Your task to perform on an android device: Open calendar and show me the first week of next month Image 0: 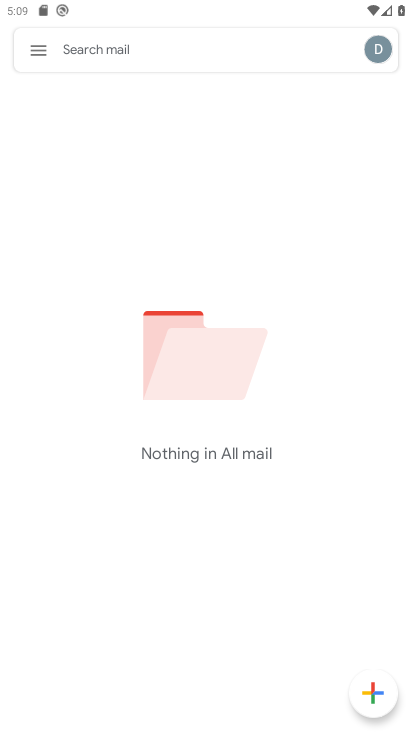
Step 0: press home button
Your task to perform on an android device: Open calendar and show me the first week of next month Image 1: 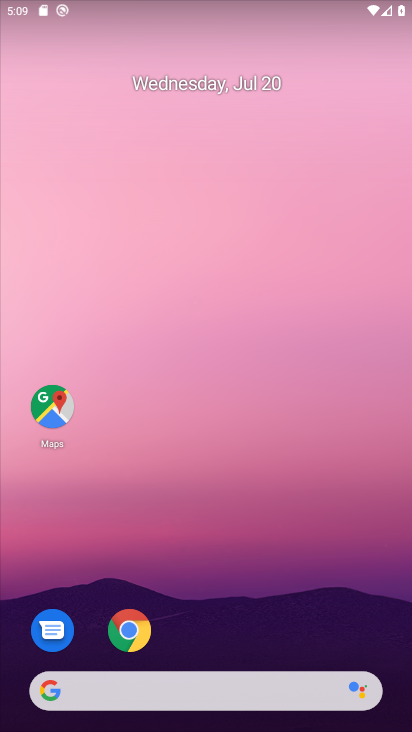
Step 1: drag from (231, 658) to (266, 4)
Your task to perform on an android device: Open calendar and show me the first week of next month Image 2: 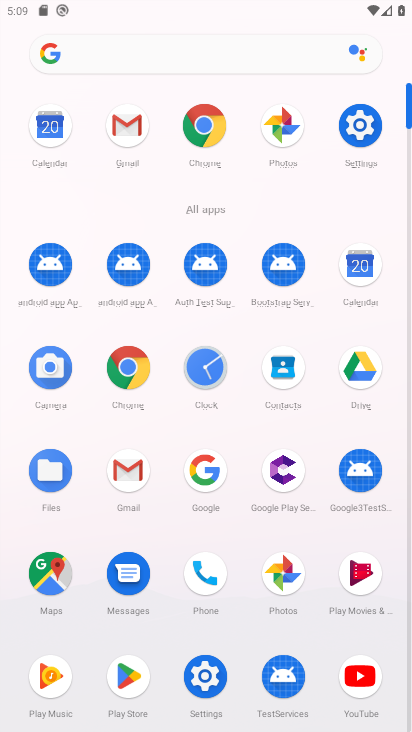
Step 2: click (356, 278)
Your task to perform on an android device: Open calendar and show me the first week of next month Image 3: 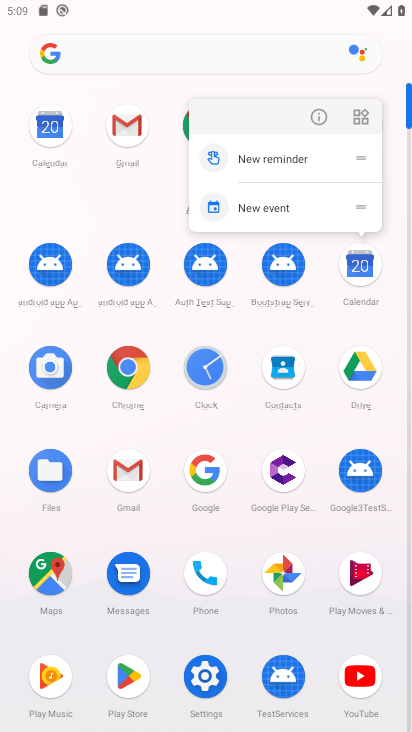
Step 3: click (356, 278)
Your task to perform on an android device: Open calendar and show me the first week of next month Image 4: 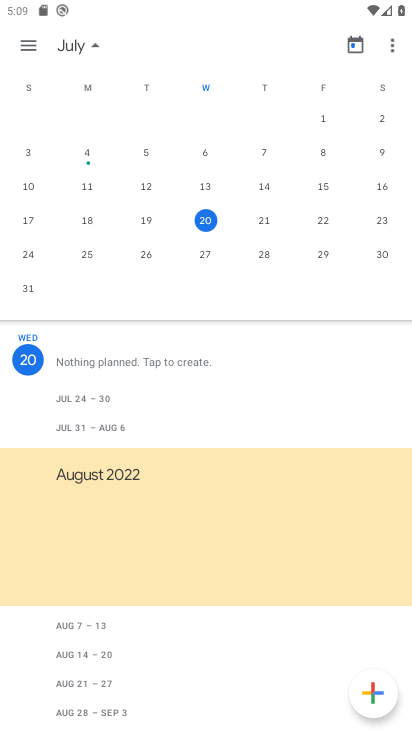
Step 4: drag from (341, 183) to (53, 164)
Your task to perform on an android device: Open calendar and show me the first week of next month Image 5: 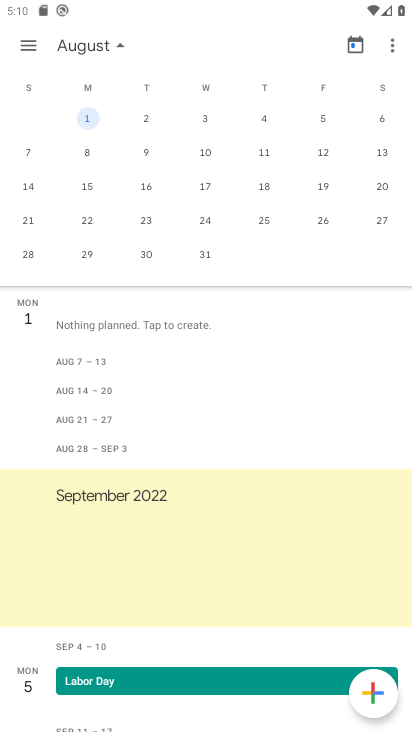
Step 5: click (89, 117)
Your task to perform on an android device: Open calendar and show me the first week of next month Image 6: 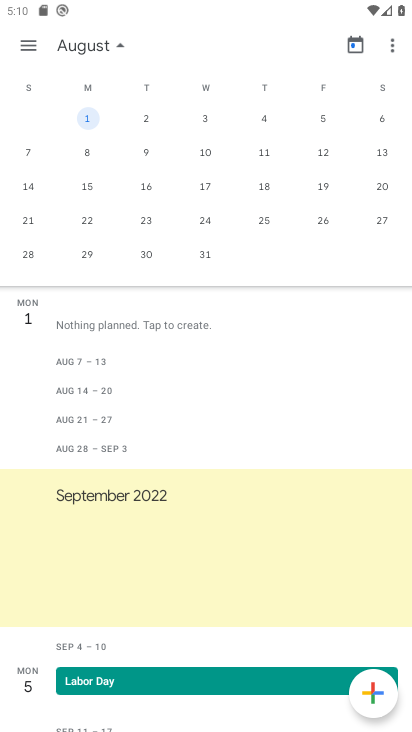
Step 6: click (149, 128)
Your task to perform on an android device: Open calendar and show me the first week of next month Image 7: 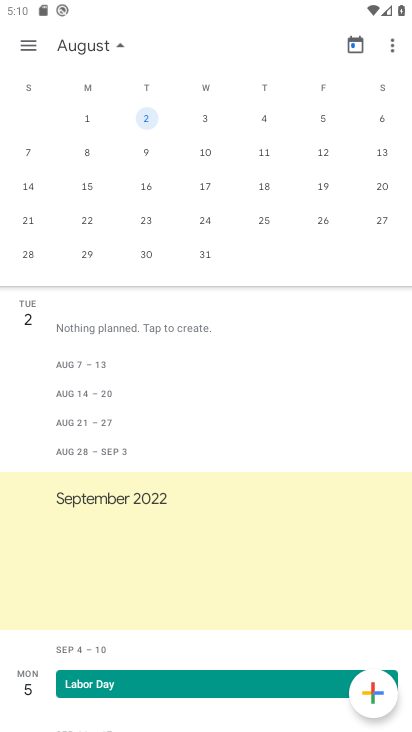
Step 7: click (210, 122)
Your task to perform on an android device: Open calendar and show me the first week of next month Image 8: 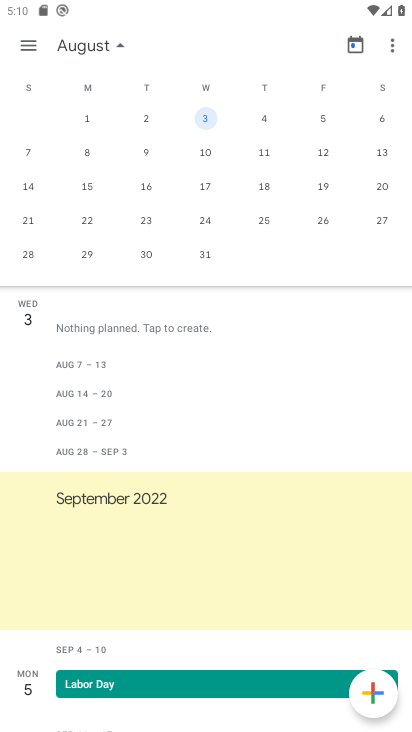
Step 8: click (257, 121)
Your task to perform on an android device: Open calendar and show me the first week of next month Image 9: 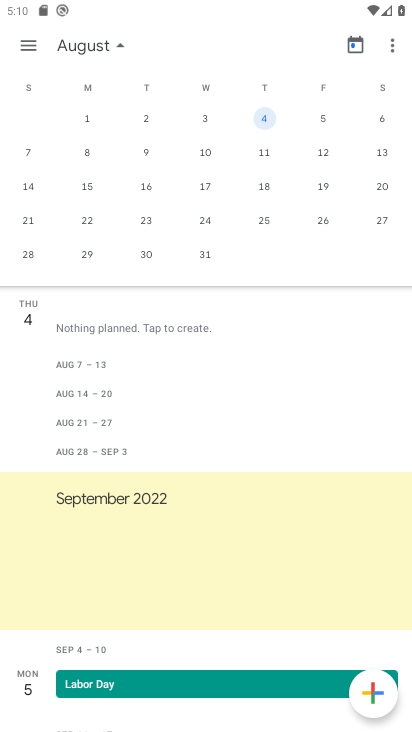
Step 9: click (320, 117)
Your task to perform on an android device: Open calendar and show me the first week of next month Image 10: 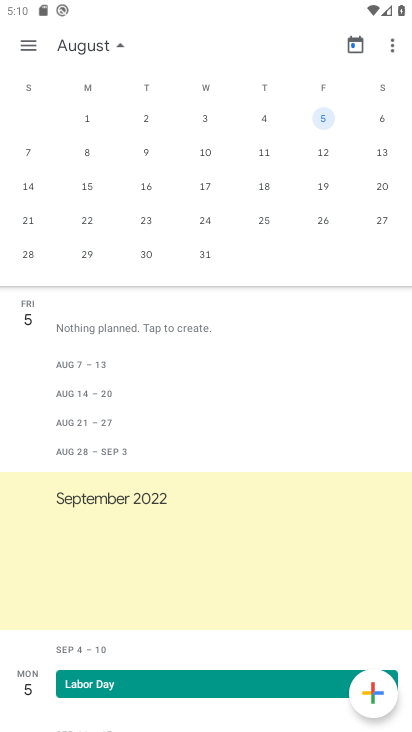
Step 10: click (378, 125)
Your task to perform on an android device: Open calendar and show me the first week of next month Image 11: 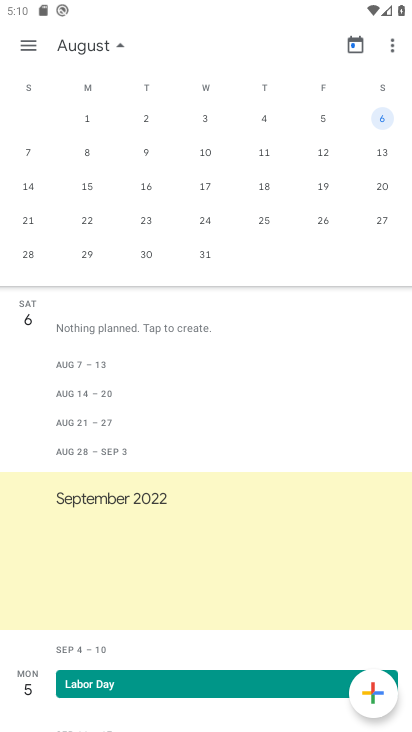
Step 11: click (28, 156)
Your task to perform on an android device: Open calendar and show me the first week of next month Image 12: 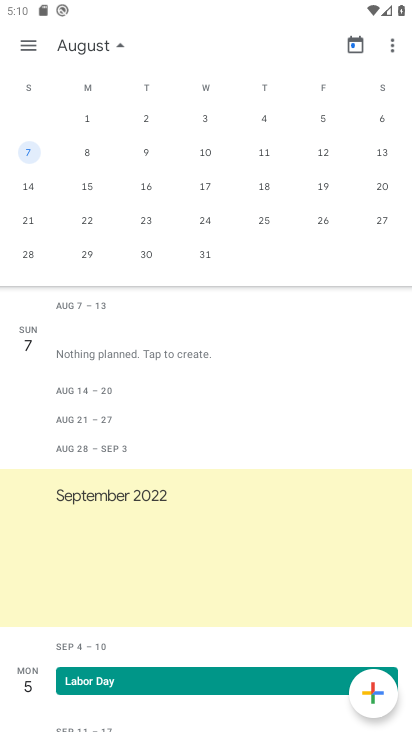
Step 12: task complete